Your task to perform on an android device: open sync settings in chrome Image 0: 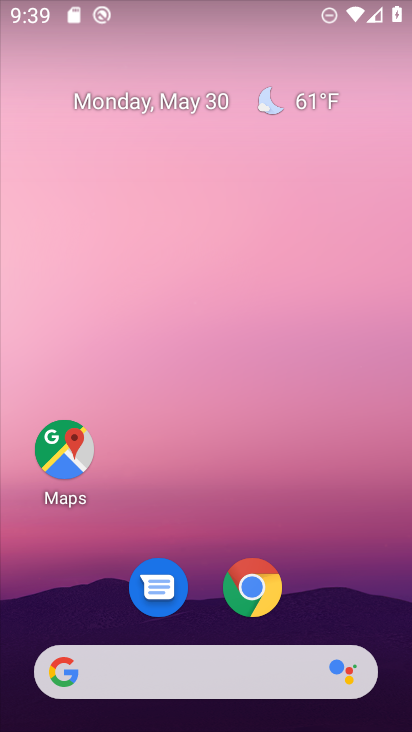
Step 0: click (240, 581)
Your task to perform on an android device: open sync settings in chrome Image 1: 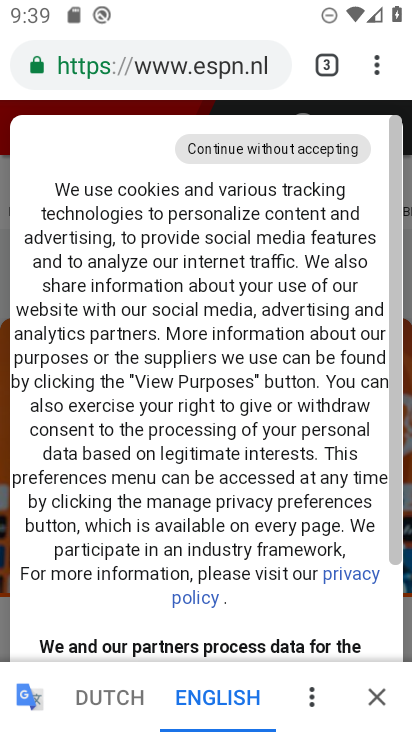
Step 1: drag from (377, 62) to (175, 642)
Your task to perform on an android device: open sync settings in chrome Image 2: 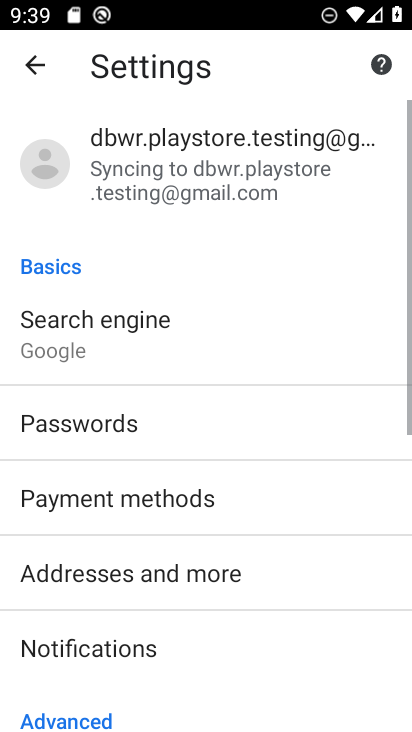
Step 2: drag from (175, 641) to (159, 129)
Your task to perform on an android device: open sync settings in chrome Image 3: 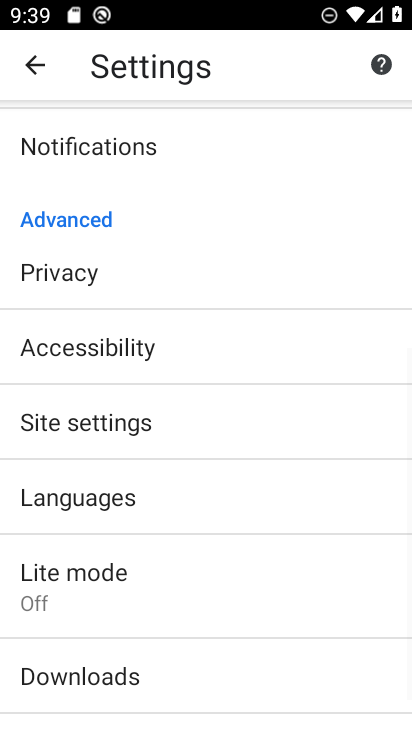
Step 3: drag from (156, 132) to (171, 724)
Your task to perform on an android device: open sync settings in chrome Image 4: 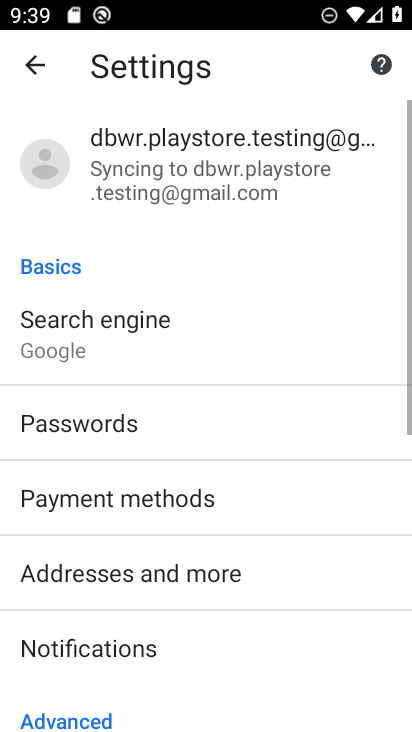
Step 4: click (147, 178)
Your task to perform on an android device: open sync settings in chrome Image 5: 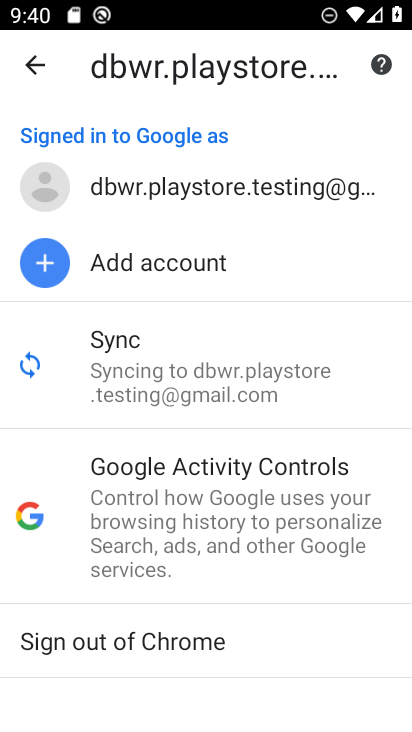
Step 5: task complete